Your task to perform on an android device: turn off notifications in google photos Image 0: 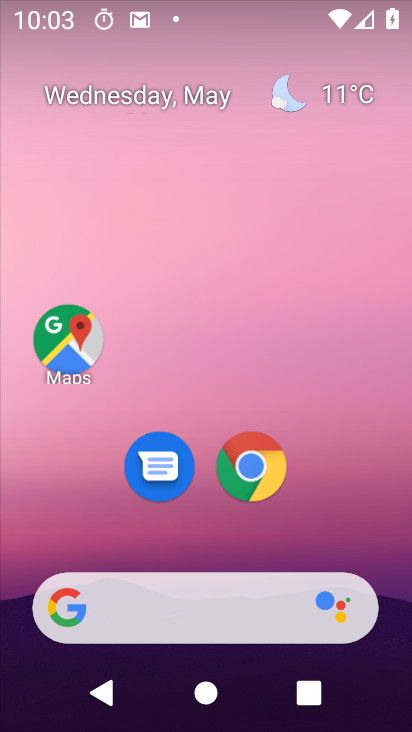
Step 0: drag from (271, 542) to (280, 83)
Your task to perform on an android device: turn off notifications in google photos Image 1: 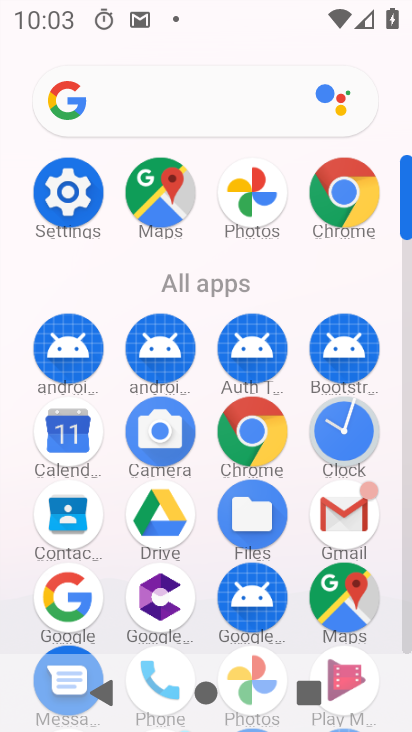
Step 1: click (265, 221)
Your task to perform on an android device: turn off notifications in google photos Image 2: 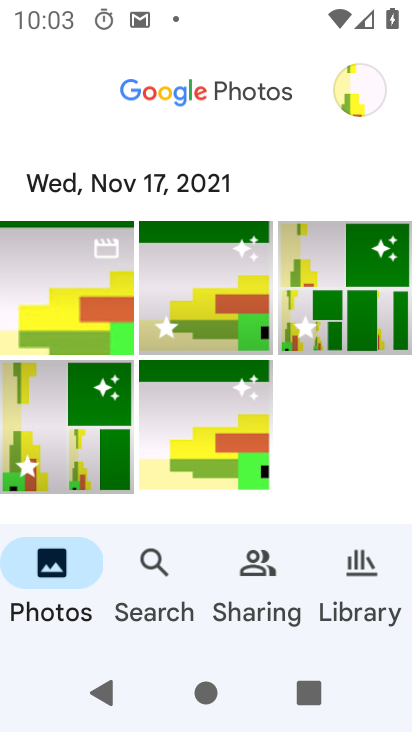
Step 2: click (241, 204)
Your task to perform on an android device: turn off notifications in google photos Image 3: 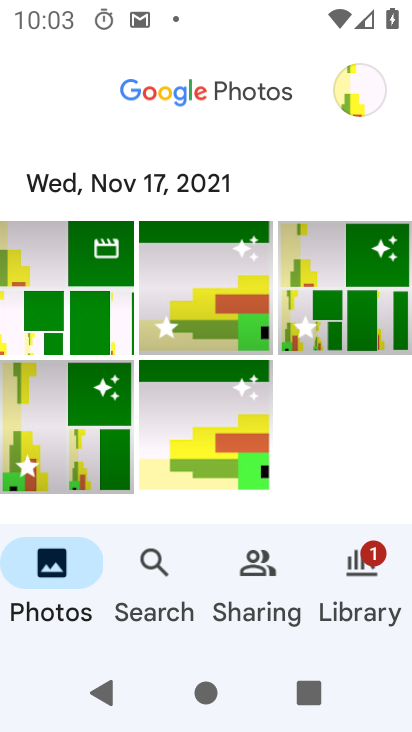
Step 3: click (353, 92)
Your task to perform on an android device: turn off notifications in google photos Image 4: 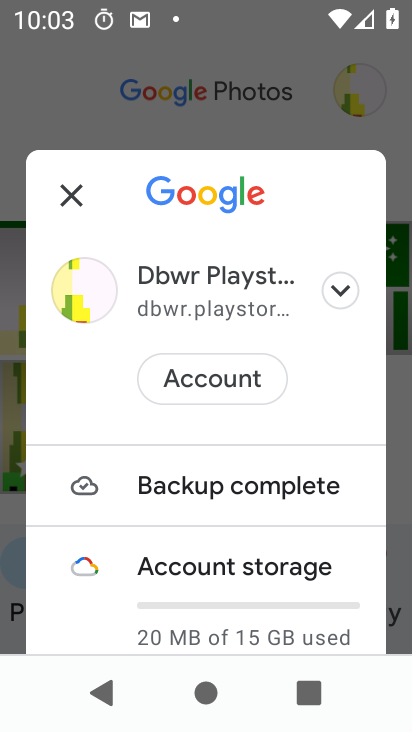
Step 4: drag from (248, 616) to (244, 217)
Your task to perform on an android device: turn off notifications in google photos Image 5: 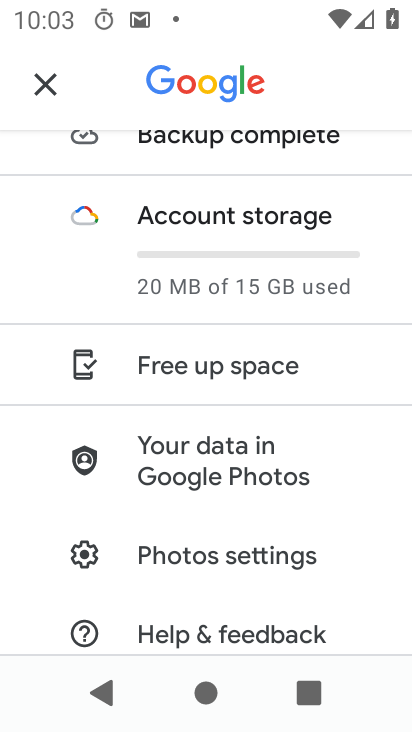
Step 5: drag from (247, 594) to (301, 263)
Your task to perform on an android device: turn off notifications in google photos Image 6: 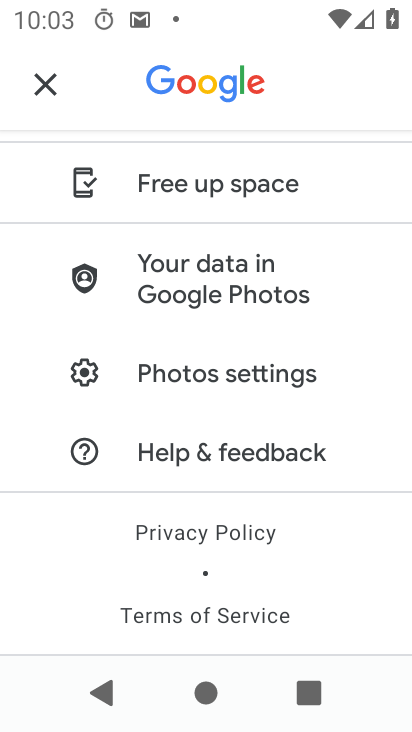
Step 6: click (203, 371)
Your task to perform on an android device: turn off notifications in google photos Image 7: 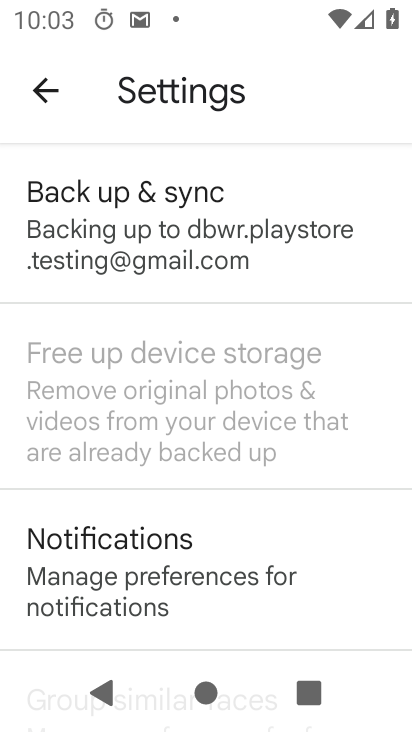
Step 7: click (166, 610)
Your task to perform on an android device: turn off notifications in google photos Image 8: 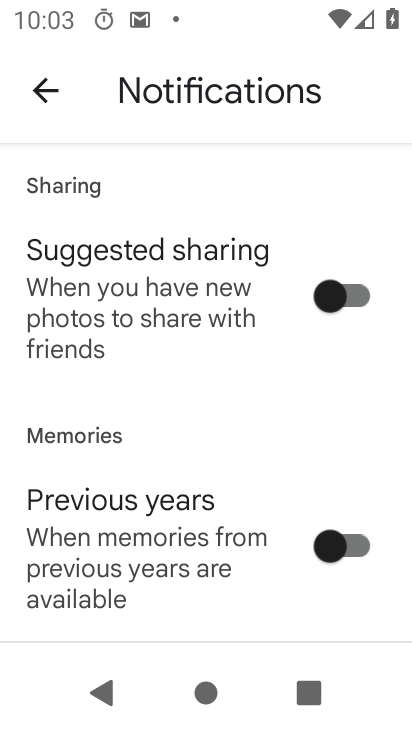
Step 8: drag from (225, 541) to (294, 220)
Your task to perform on an android device: turn off notifications in google photos Image 9: 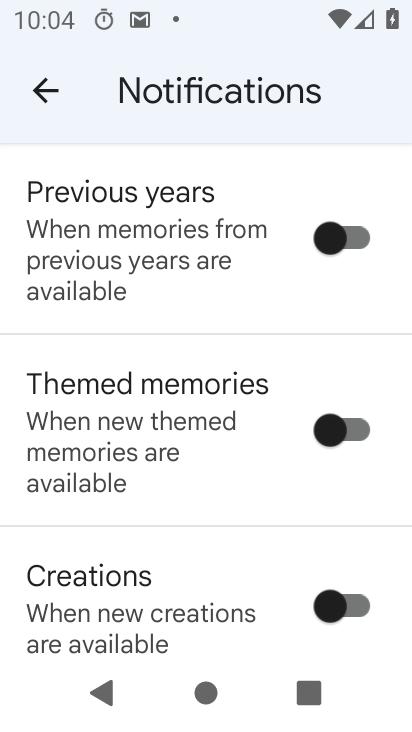
Step 9: drag from (188, 618) to (220, 222)
Your task to perform on an android device: turn off notifications in google photos Image 10: 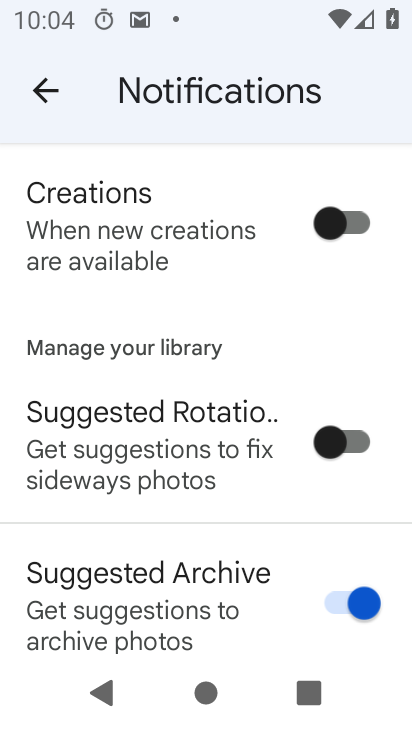
Step 10: click (343, 603)
Your task to perform on an android device: turn off notifications in google photos Image 11: 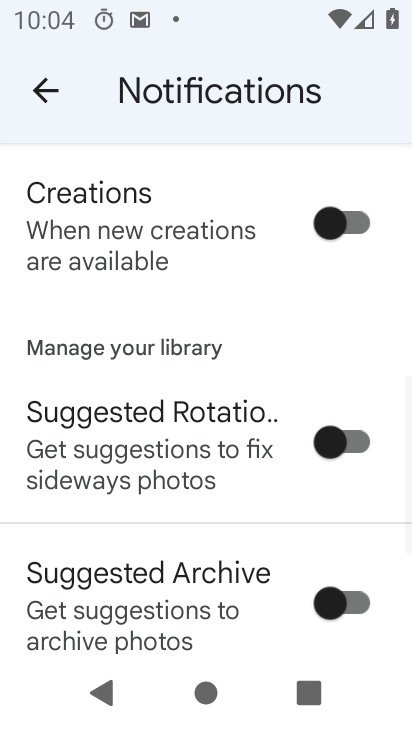
Step 11: task complete